Your task to perform on an android device: When is my next appointment? Image 0: 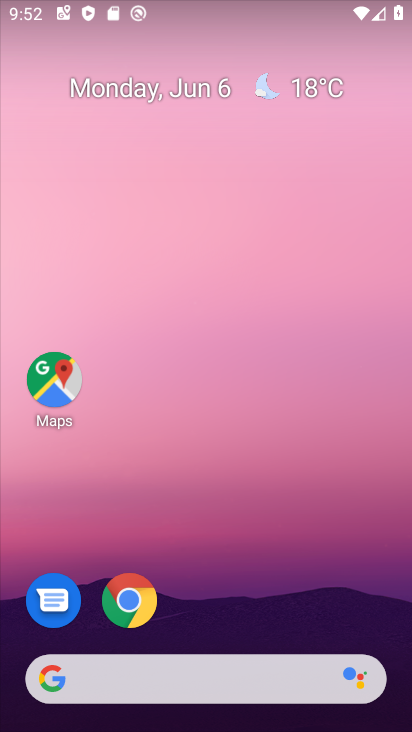
Step 0: drag from (250, 526) to (168, 21)
Your task to perform on an android device: When is my next appointment? Image 1: 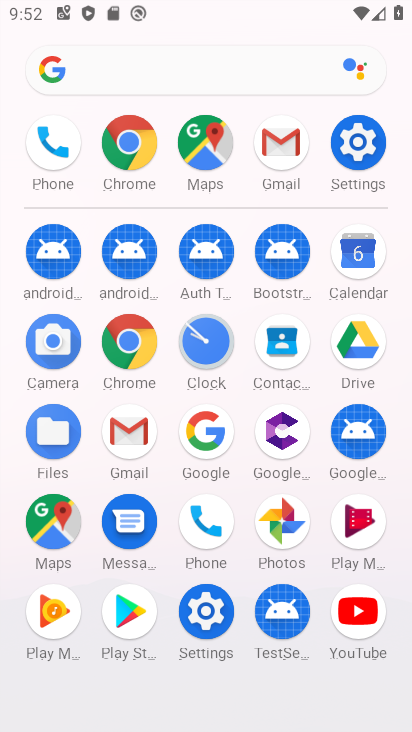
Step 1: click (129, 337)
Your task to perform on an android device: When is my next appointment? Image 2: 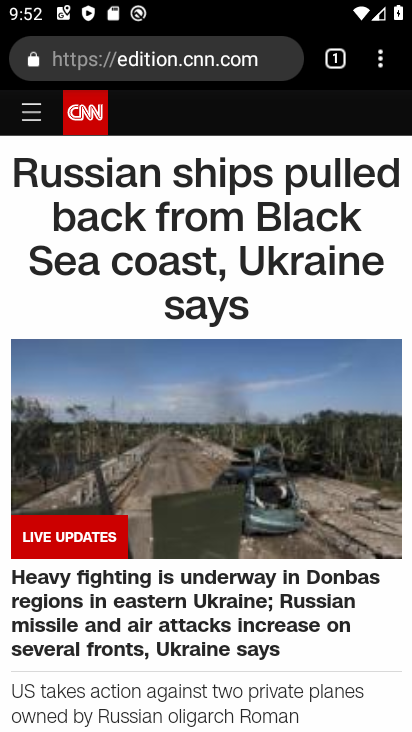
Step 2: click (191, 47)
Your task to perform on an android device: When is my next appointment? Image 3: 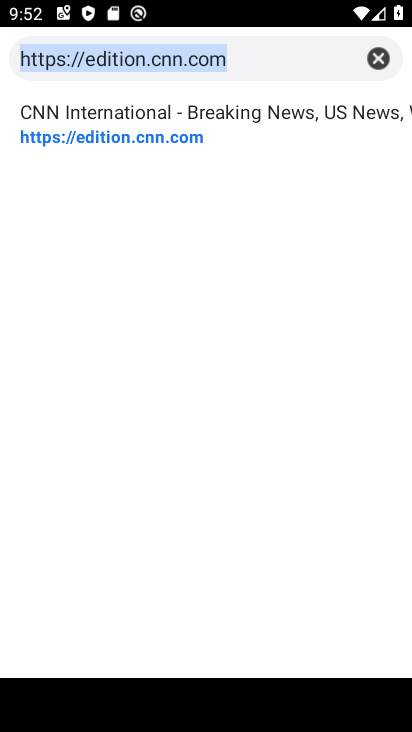
Step 3: press back button
Your task to perform on an android device: When is my next appointment? Image 4: 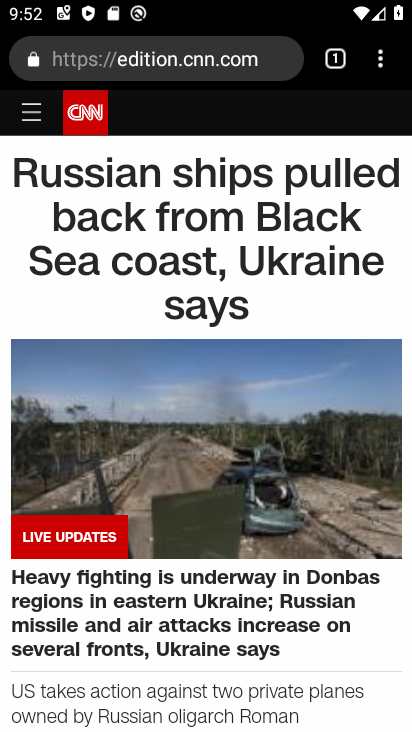
Step 4: press home button
Your task to perform on an android device: When is my next appointment? Image 5: 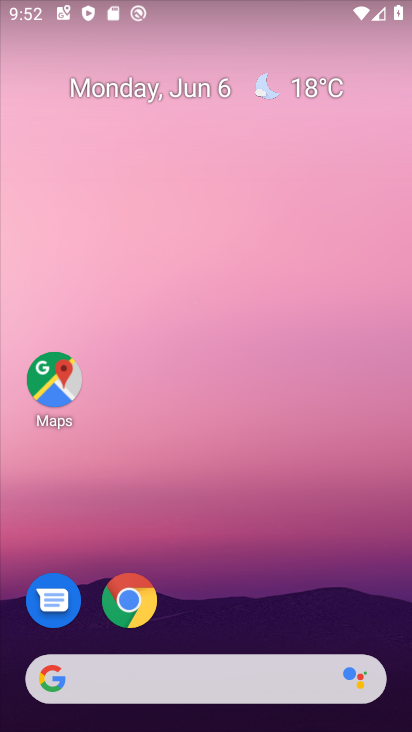
Step 5: drag from (263, 511) to (235, 8)
Your task to perform on an android device: When is my next appointment? Image 6: 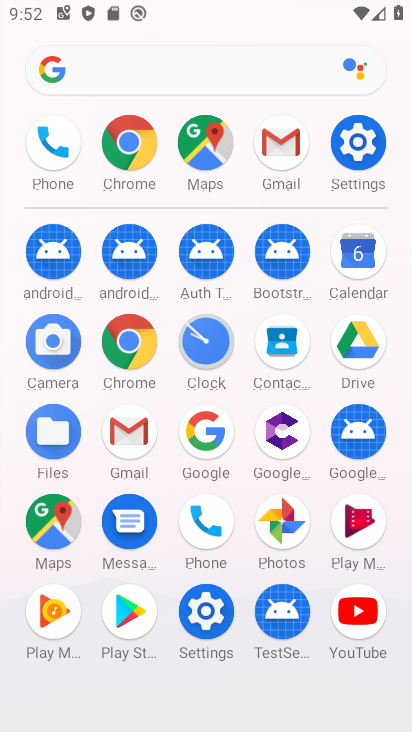
Step 6: click (360, 245)
Your task to perform on an android device: When is my next appointment? Image 7: 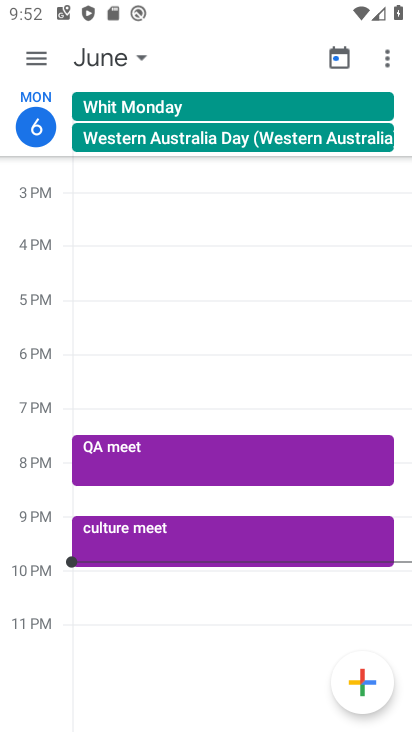
Step 7: click (33, 59)
Your task to perform on an android device: When is my next appointment? Image 8: 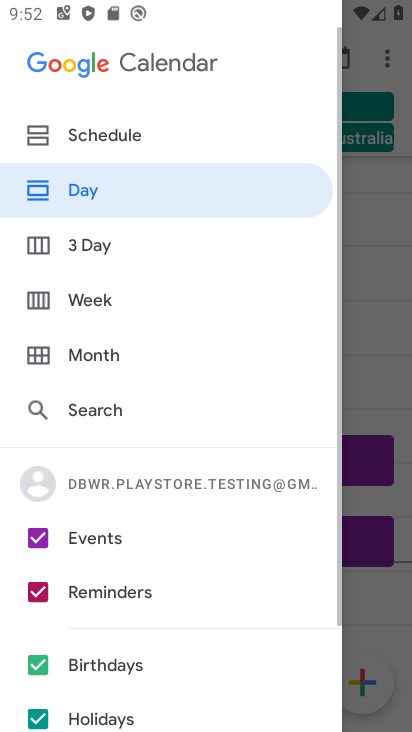
Step 8: click (119, 130)
Your task to perform on an android device: When is my next appointment? Image 9: 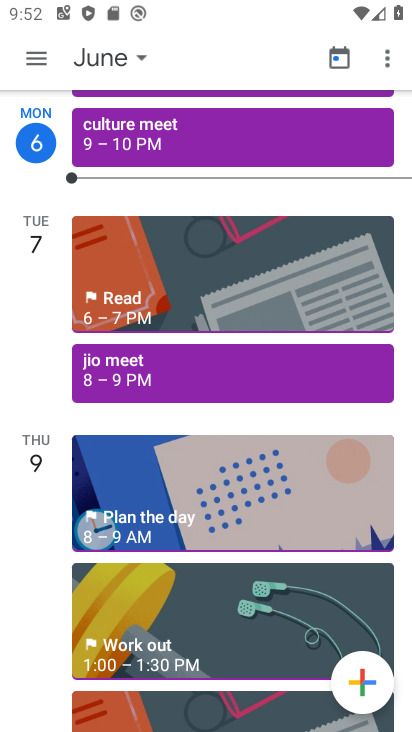
Step 9: task complete